Your task to perform on an android device: change the clock display to show seconds Image 0: 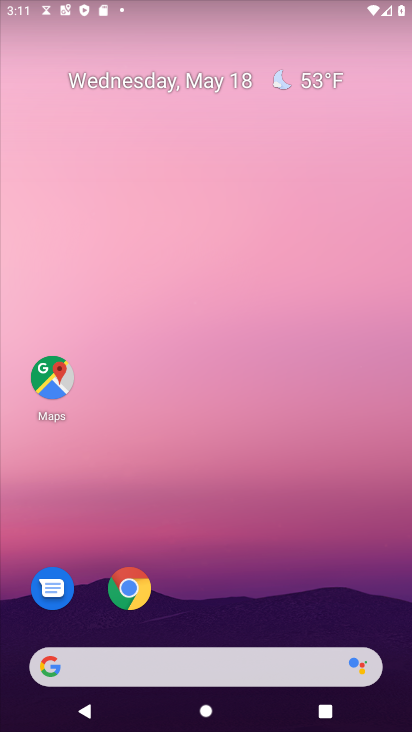
Step 0: press home button
Your task to perform on an android device: change the clock display to show seconds Image 1: 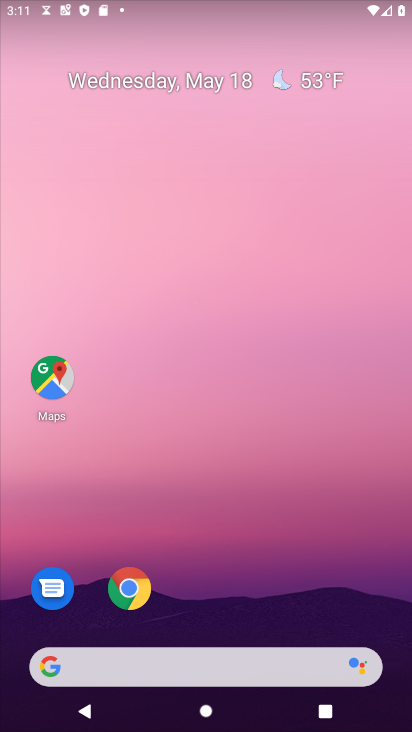
Step 1: drag from (160, 633) to (204, 40)
Your task to perform on an android device: change the clock display to show seconds Image 2: 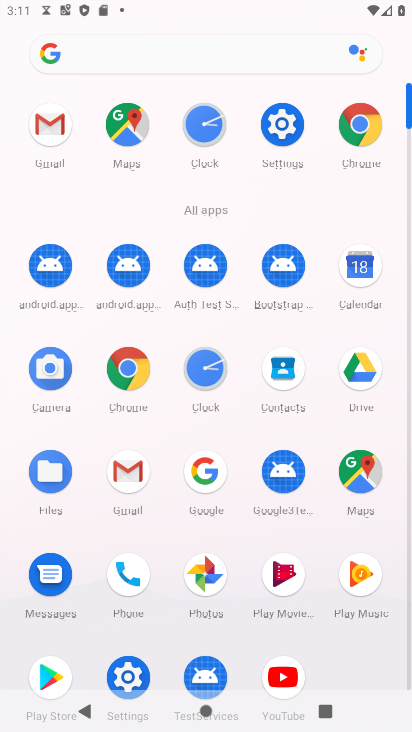
Step 2: click (205, 142)
Your task to perform on an android device: change the clock display to show seconds Image 3: 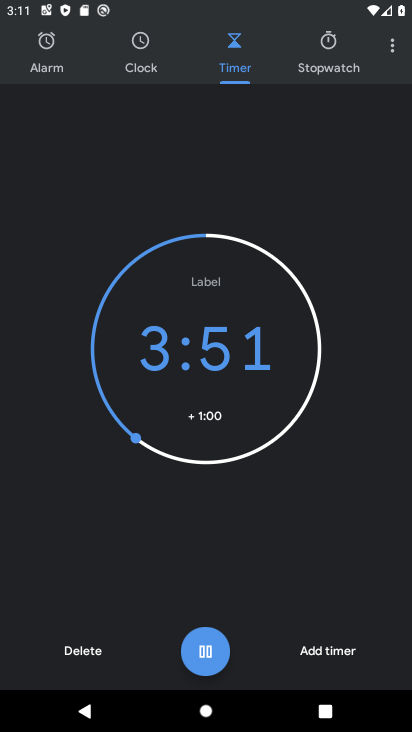
Step 3: click (388, 44)
Your task to perform on an android device: change the clock display to show seconds Image 4: 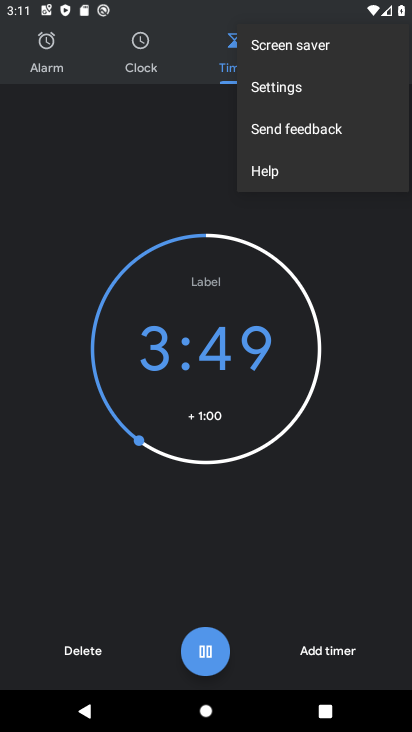
Step 4: click (295, 80)
Your task to perform on an android device: change the clock display to show seconds Image 5: 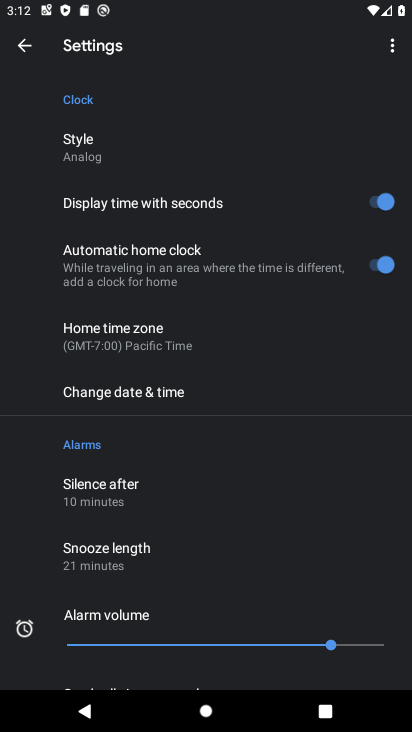
Step 5: task complete